Your task to perform on an android device: Open Reddit.com Image 0: 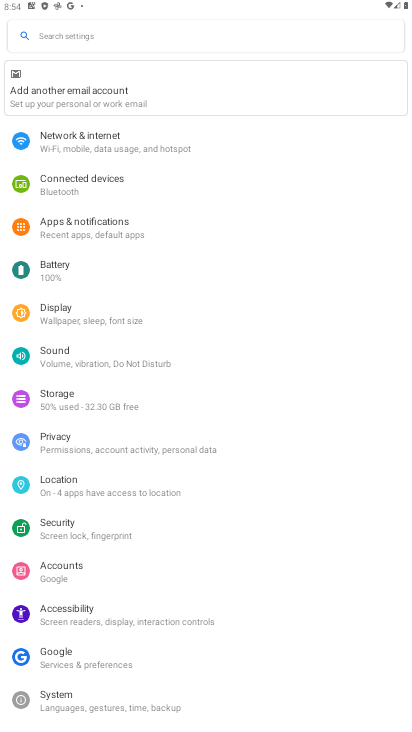
Step 0: press home button
Your task to perform on an android device: Open Reddit.com Image 1: 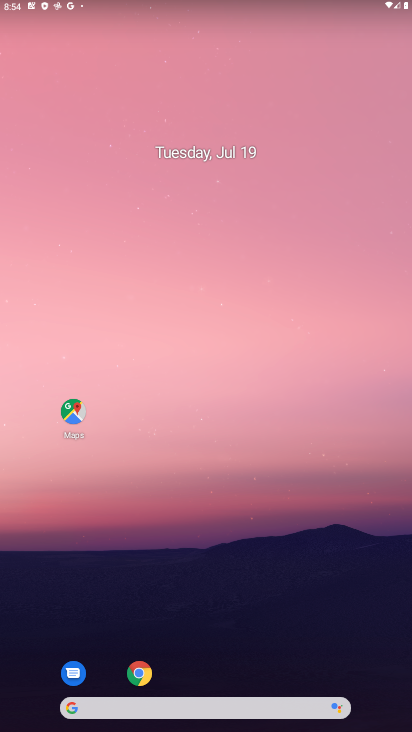
Step 1: click (168, 698)
Your task to perform on an android device: Open Reddit.com Image 2: 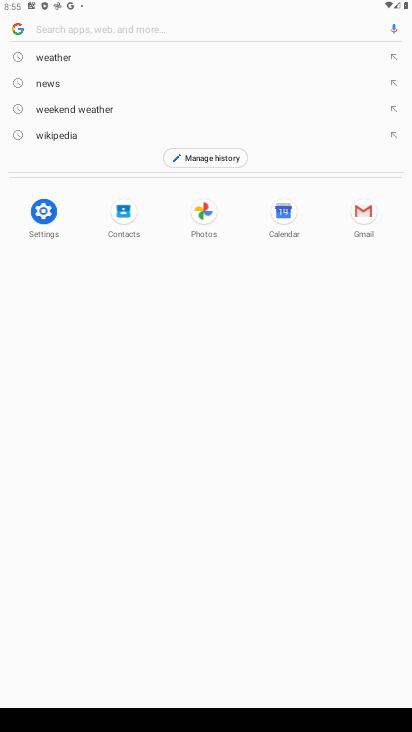
Step 2: type "reddit"
Your task to perform on an android device: Open Reddit.com Image 3: 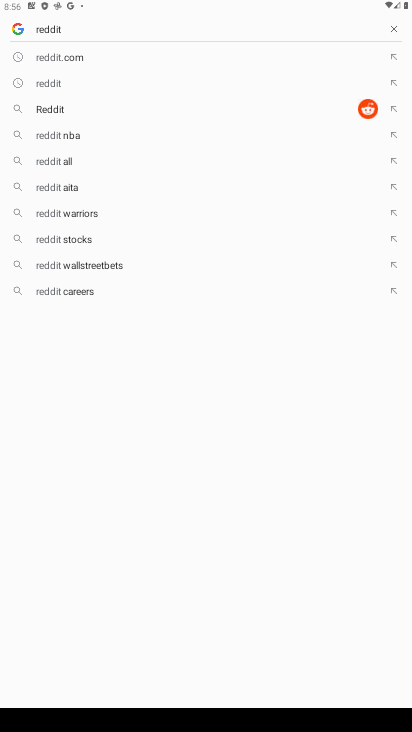
Step 3: click (68, 60)
Your task to perform on an android device: Open Reddit.com Image 4: 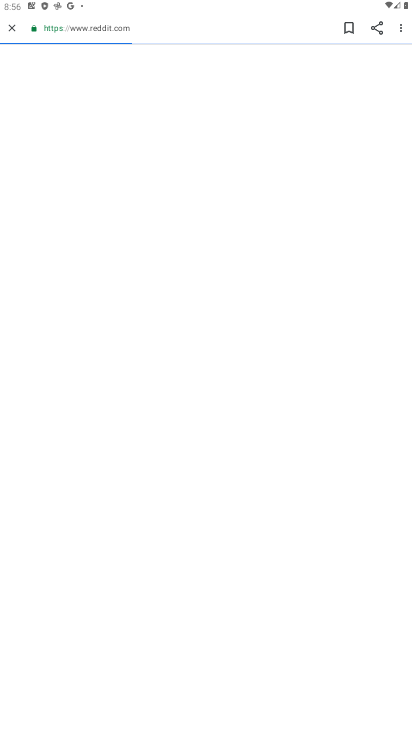
Step 4: task complete